Your task to perform on an android device: toggle notifications settings in the gmail app Image 0: 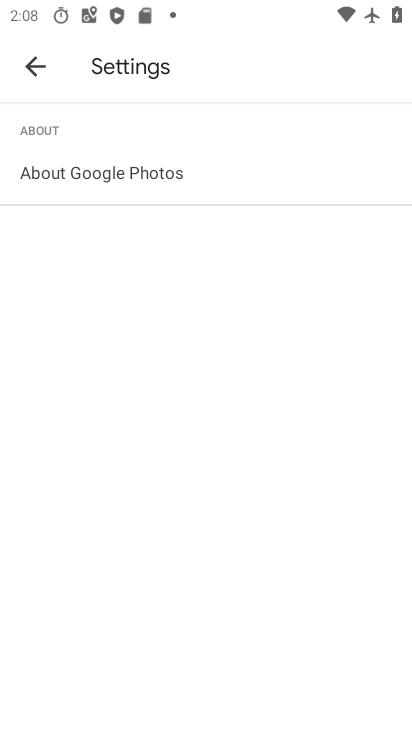
Step 0: press home button
Your task to perform on an android device: toggle notifications settings in the gmail app Image 1: 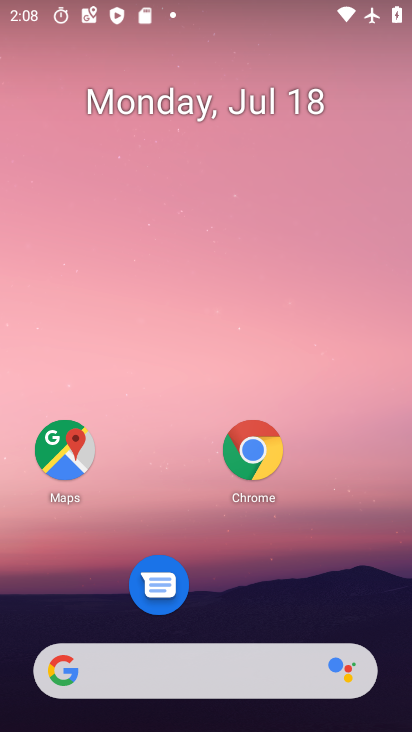
Step 1: drag from (240, 670) to (329, 170)
Your task to perform on an android device: toggle notifications settings in the gmail app Image 2: 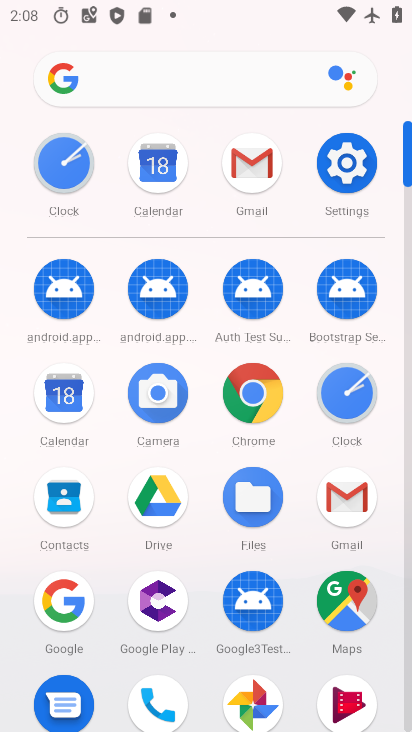
Step 2: click (253, 172)
Your task to perform on an android device: toggle notifications settings in the gmail app Image 3: 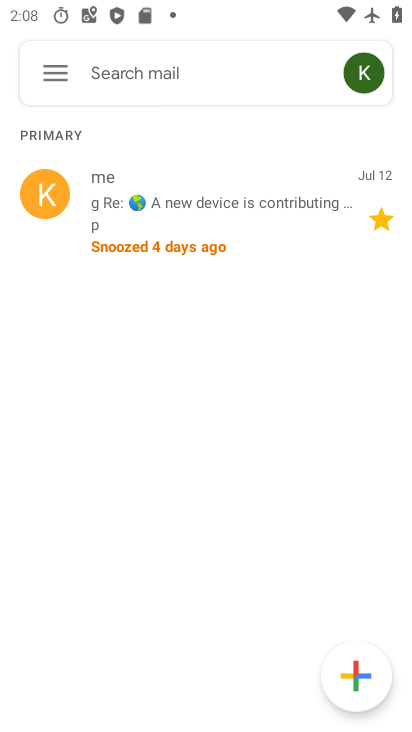
Step 3: click (56, 66)
Your task to perform on an android device: toggle notifications settings in the gmail app Image 4: 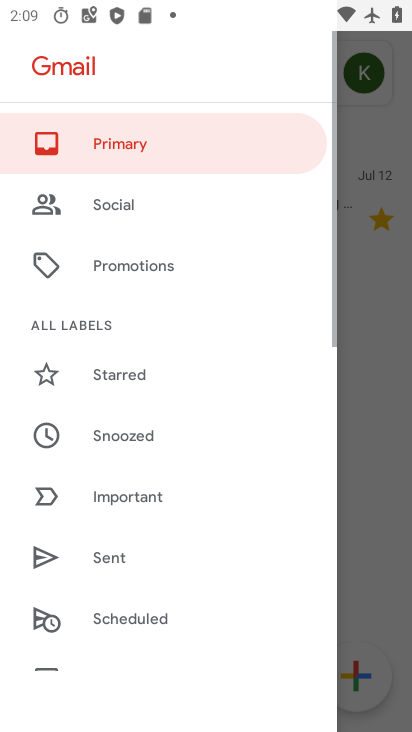
Step 4: drag from (163, 646) to (257, 158)
Your task to perform on an android device: toggle notifications settings in the gmail app Image 5: 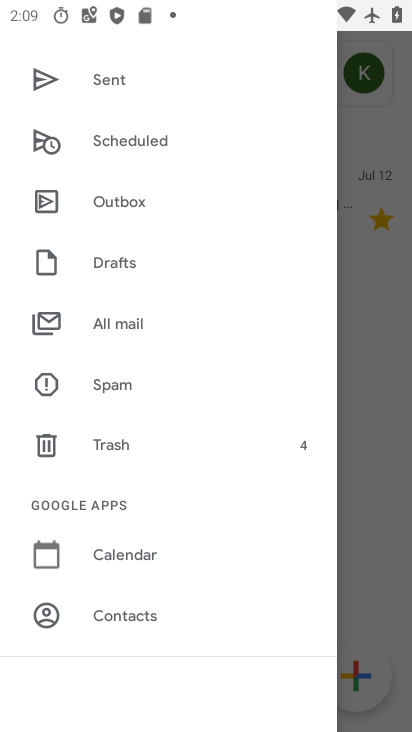
Step 5: drag from (195, 610) to (247, 211)
Your task to perform on an android device: toggle notifications settings in the gmail app Image 6: 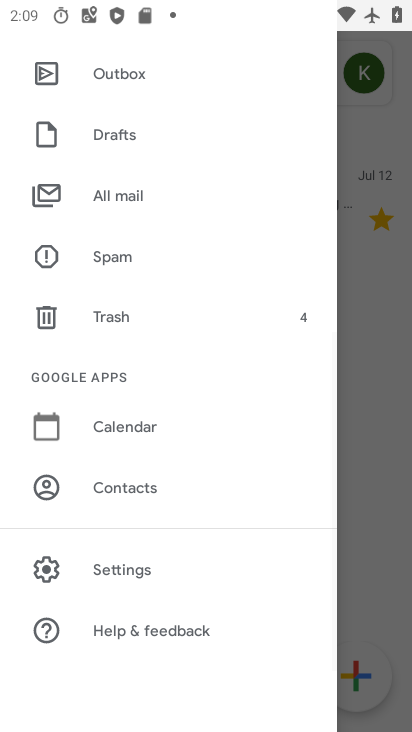
Step 6: click (141, 564)
Your task to perform on an android device: toggle notifications settings in the gmail app Image 7: 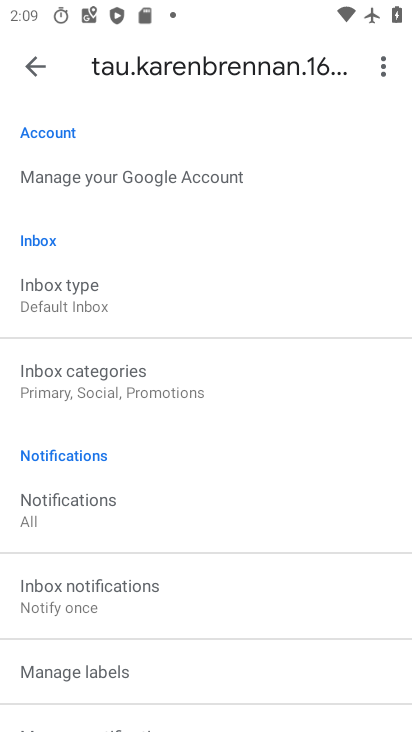
Step 7: click (109, 502)
Your task to perform on an android device: toggle notifications settings in the gmail app Image 8: 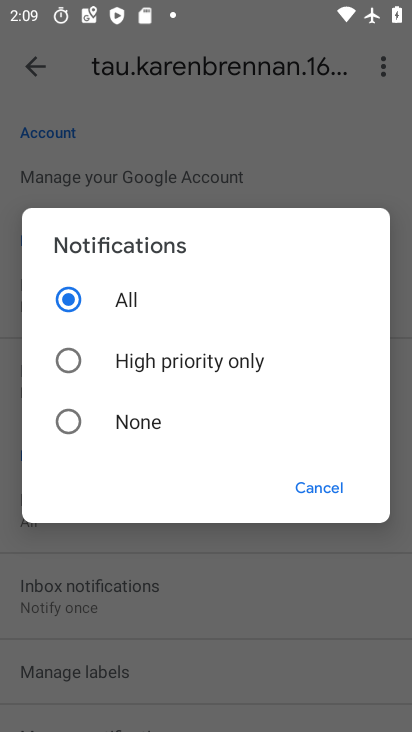
Step 8: click (75, 418)
Your task to perform on an android device: toggle notifications settings in the gmail app Image 9: 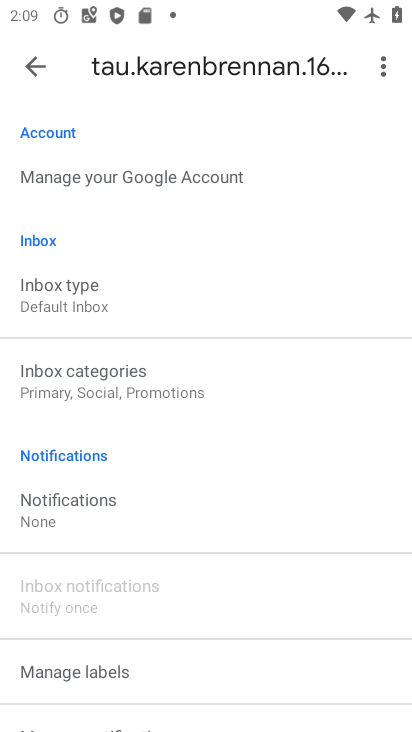
Step 9: task complete